Your task to perform on an android device: change the clock style Image 0: 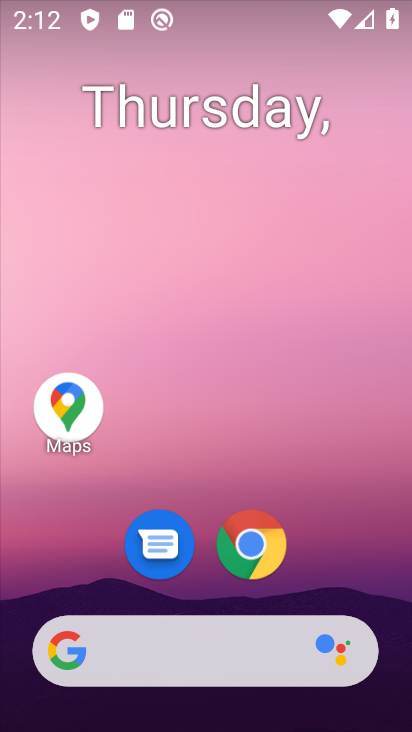
Step 0: drag from (350, 516) to (167, 177)
Your task to perform on an android device: change the clock style Image 1: 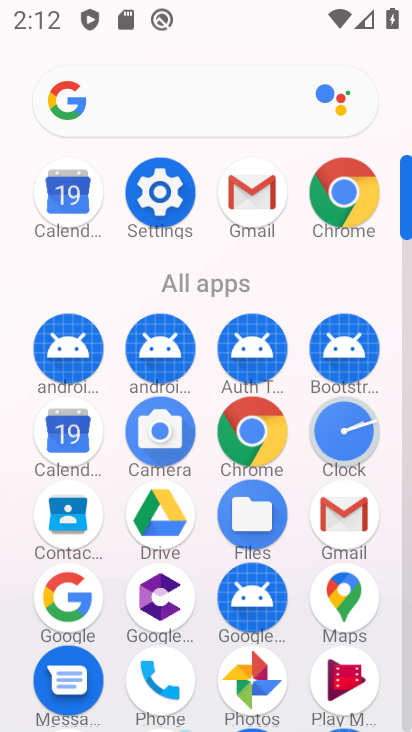
Step 1: click (356, 436)
Your task to perform on an android device: change the clock style Image 2: 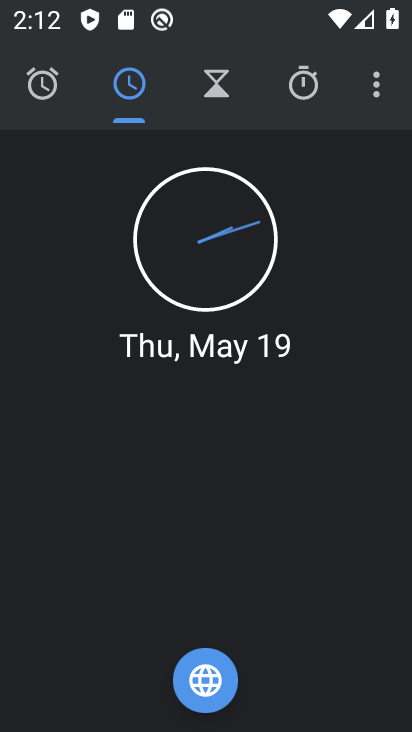
Step 2: click (375, 75)
Your task to perform on an android device: change the clock style Image 3: 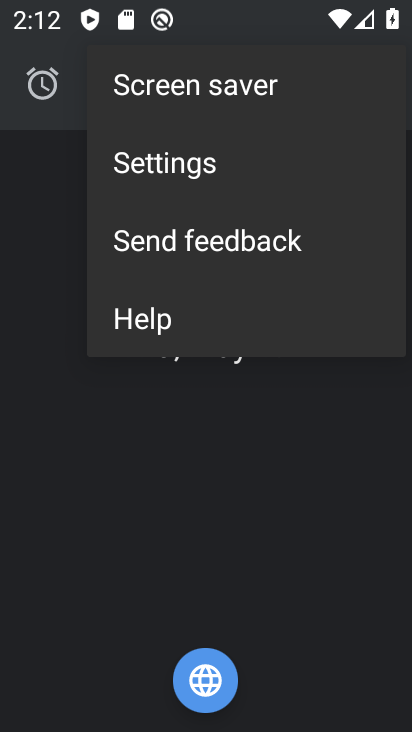
Step 3: click (173, 172)
Your task to perform on an android device: change the clock style Image 4: 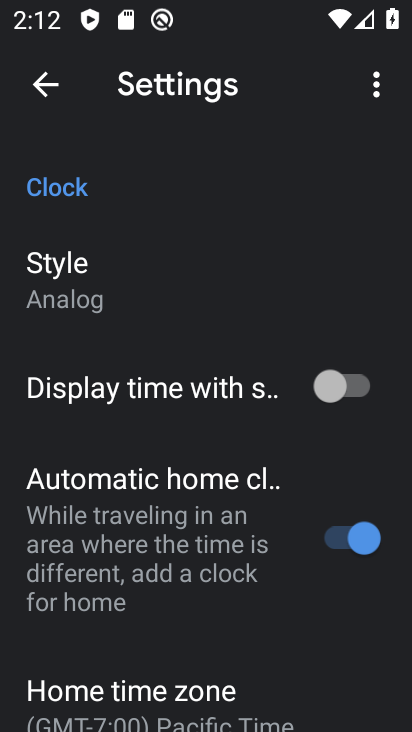
Step 4: click (64, 289)
Your task to perform on an android device: change the clock style Image 5: 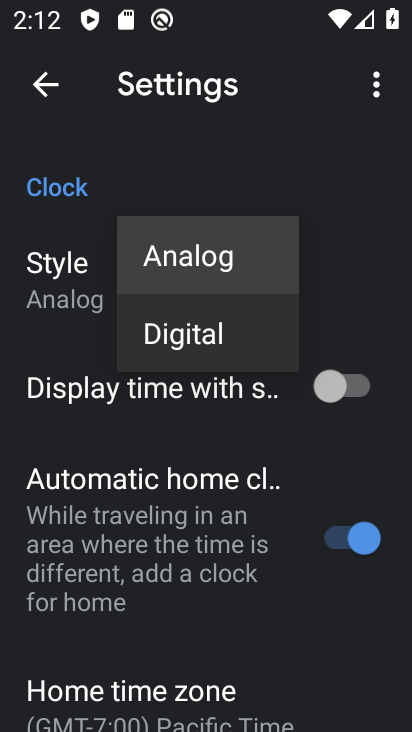
Step 5: click (160, 327)
Your task to perform on an android device: change the clock style Image 6: 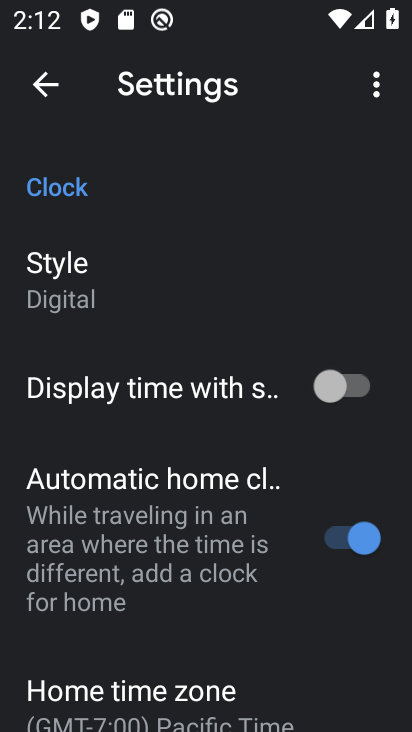
Step 6: task complete